Your task to perform on an android device: remove spam from my inbox in the gmail app Image 0: 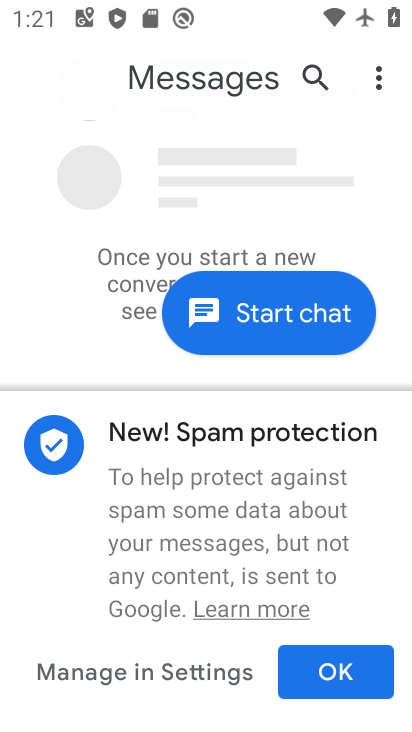
Step 0: press home button
Your task to perform on an android device: remove spam from my inbox in the gmail app Image 1: 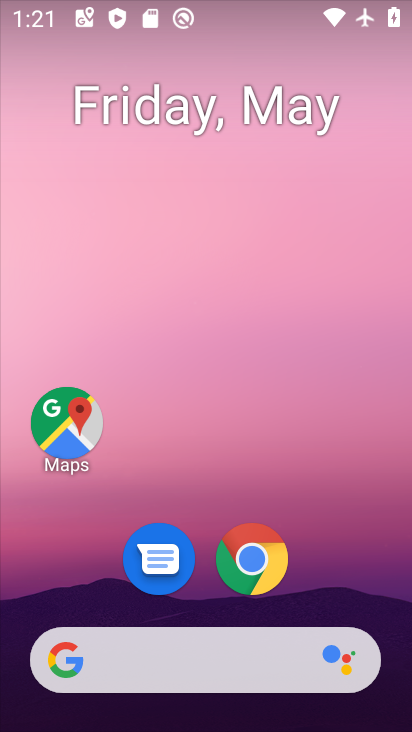
Step 1: drag from (368, 571) to (199, 45)
Your task to perform on an android device: remove spam from my inbox in the gmail app Image 2: 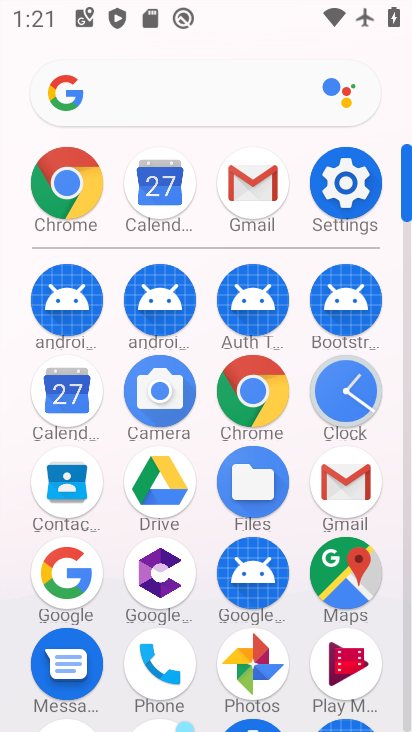
Step 2: click (275, 179)
Your task to perform on an android device: remove spam from my inbox in the gmail app Image 3: 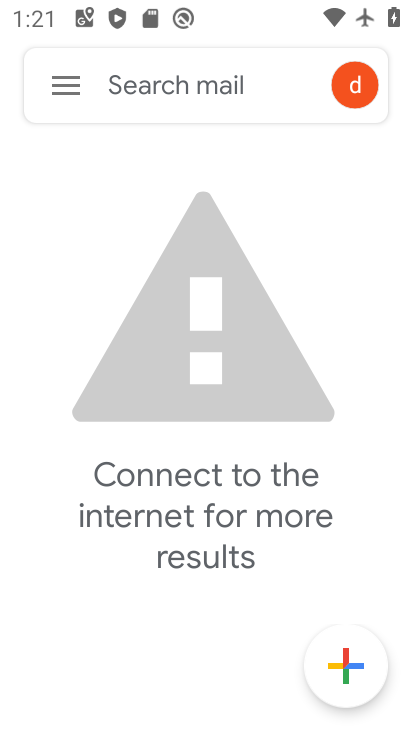
Step 3: click (69, 82)
Your task to perform on an android device: remove spam from my inbox in the gmail app Image 4: 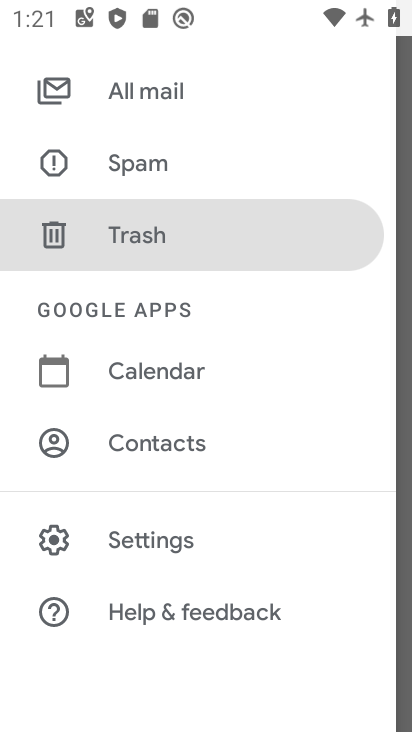
Step 4: drag from (236, 262) to (193, 606)
Your task to perform on an android device: remove spam from my inbox in the gmail app Image 5: 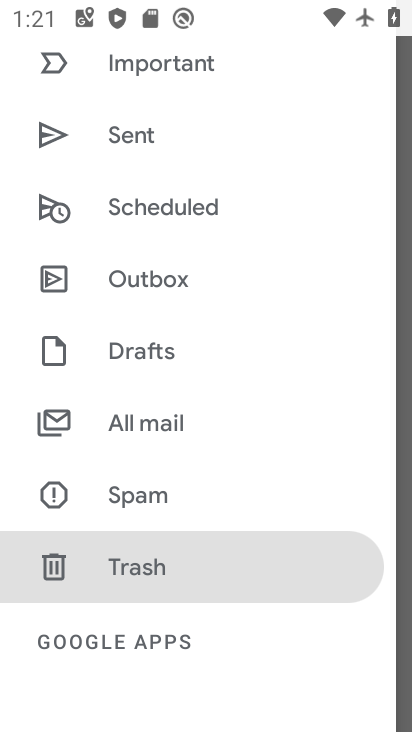
Step 5: drag from (223, 245) to (233, 594)
Your task to perform on an android device: remove spam from my inbox in the gmail app Image 6: 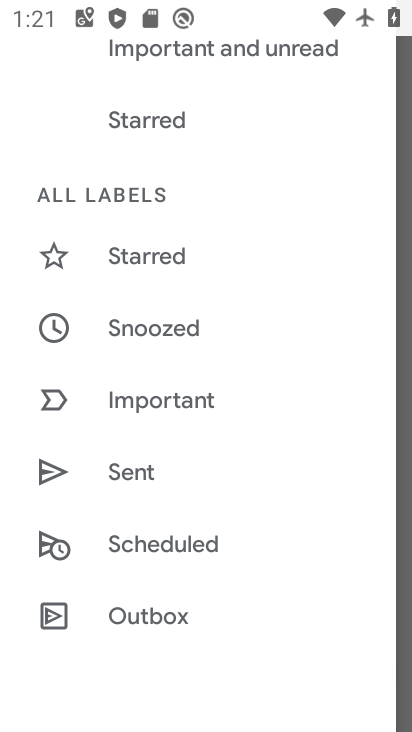
Step 6: drag from (194, 188) to (180, 498)
Your task to perform on an android device: remove spam from my inbox in the gmail app Image 7: 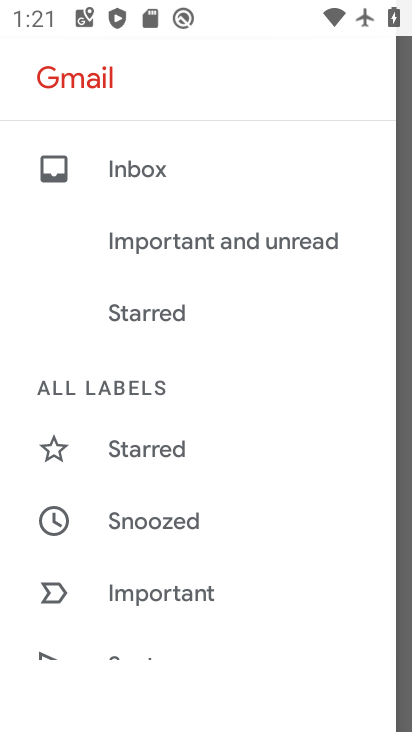
Step 7: click (150, 159)
Your task to perform on an android device: remove spam from my inbox in the gmail app Image 8: 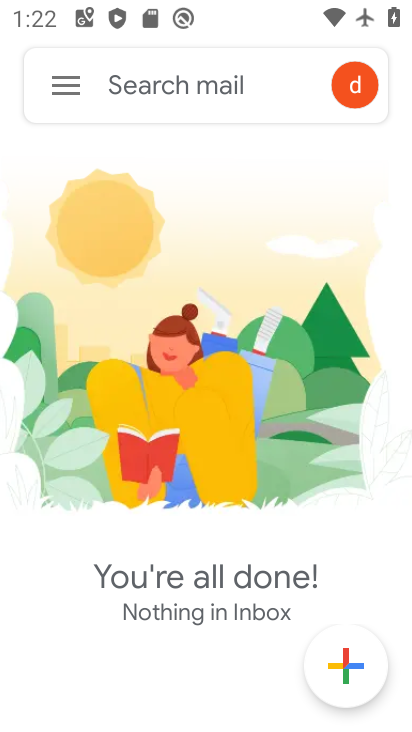
Step 8: task complete